Your task to perform on an android device: Play the last video I watched on Youtube Image 0: 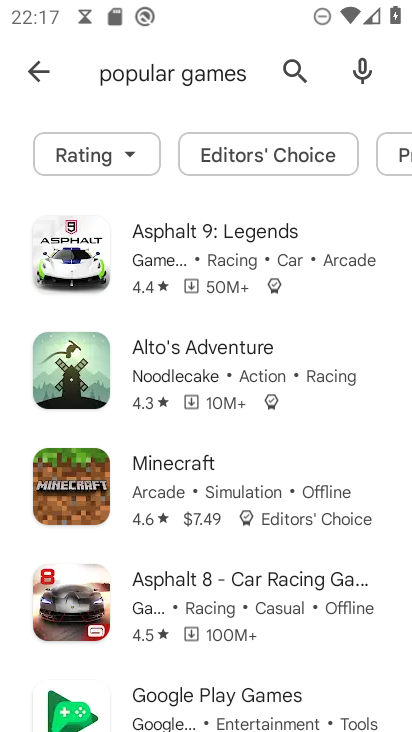
Step 0: press home button
Your task to perform on an android device: Play the last video I watched on Youtube Image 1: 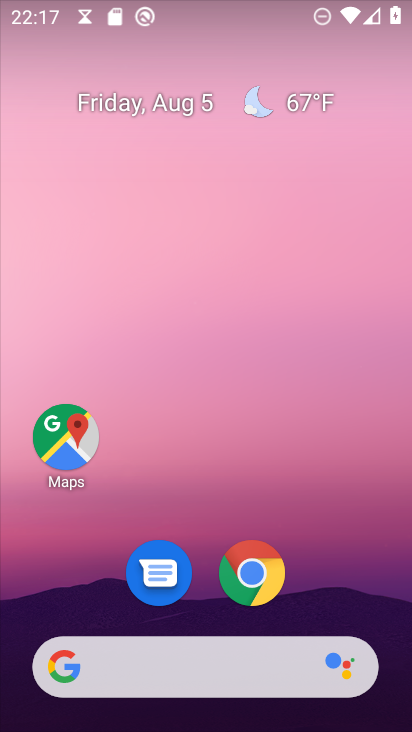
Step 1: drag from (173, 680) to (212, 191)
Your task to perform on an android device: Play the last video I watched on Youtube Image 2: 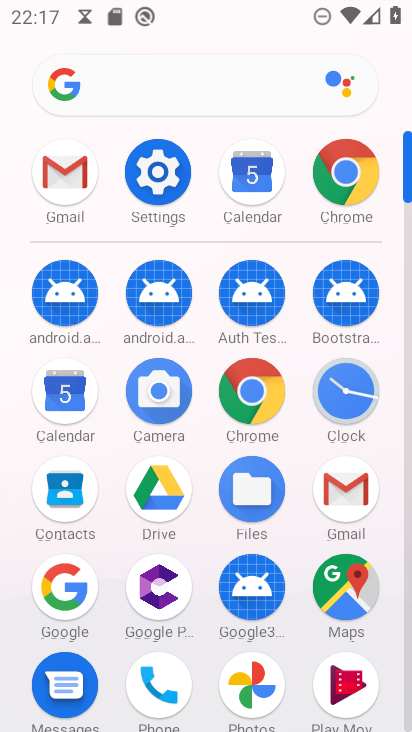
Step 2: drag from (198, 522) to (211, 265)
Your task to perform on an android device: Play the last video I watched on Youtube Image 3: 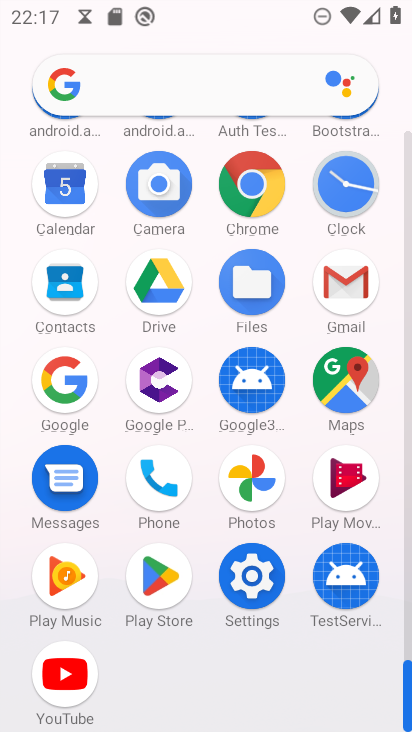
Step 3: click (63, 673)
Your task to perform on an android device: Play the last video I watched on Youtube Image 4: 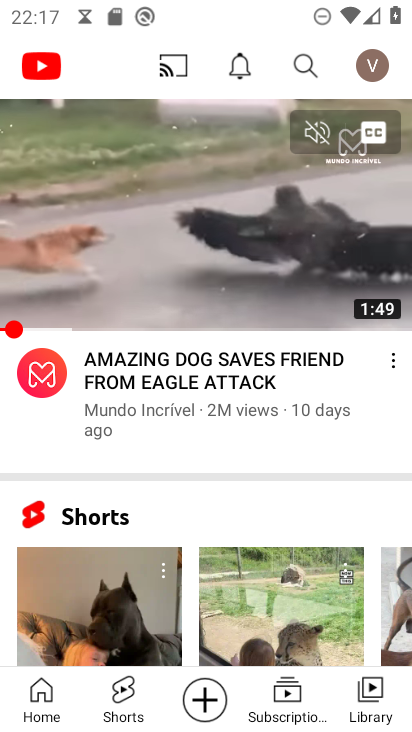
Step 4: click (375, 693)
Your task to perform on an android device: Play the last video I watched on Youtube Image 5: 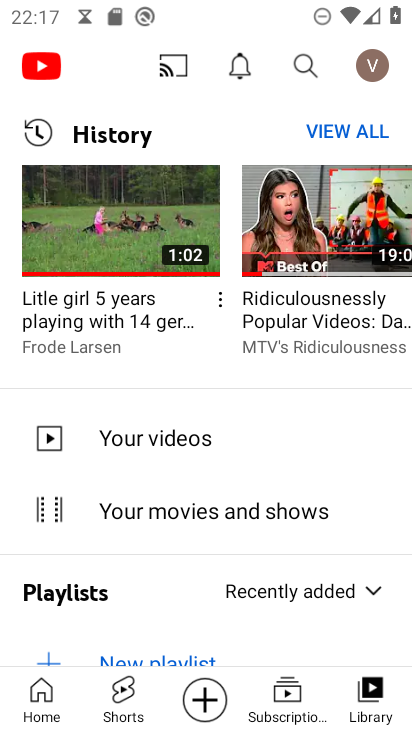
Step 5: click (72, 244)
Your task to perform on an android device: Play the last video I watched on Youtube Image 6: 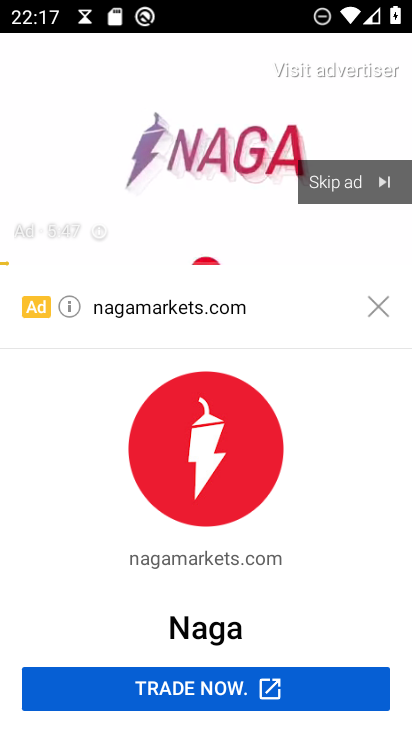
Step 6: click (361, 190)
Your task to perform on an android device: Play the last video I watched on Youtube Image 7: 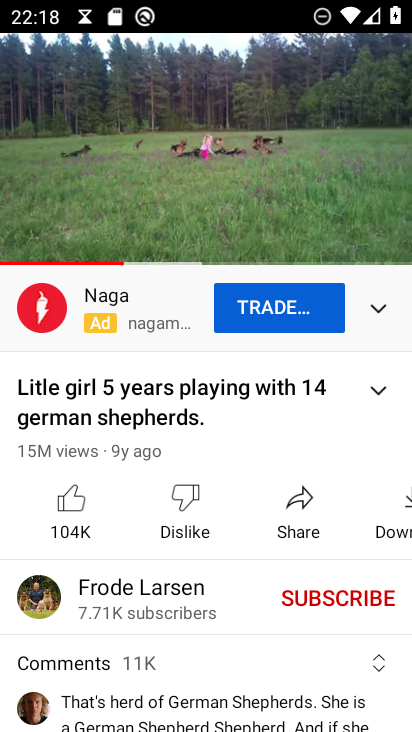
Step 7: click (200, 148)
Your task to perform on an android device: Play the last video I watched on Youtube Image 8: 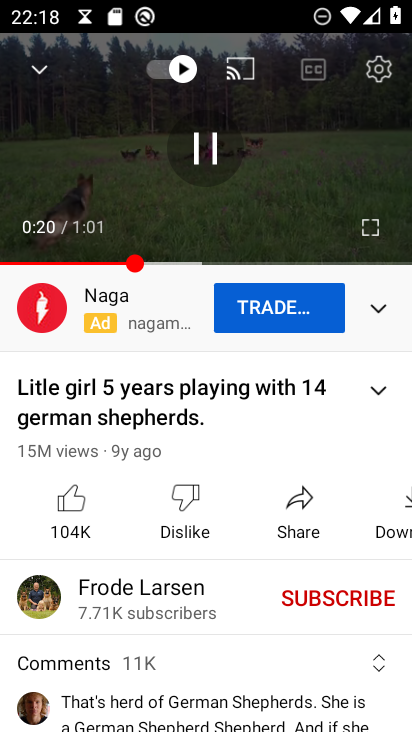
Step 8: click (200, 148)
Your task to perform on an android device: Play the last video I watched on Youtube Image 9: 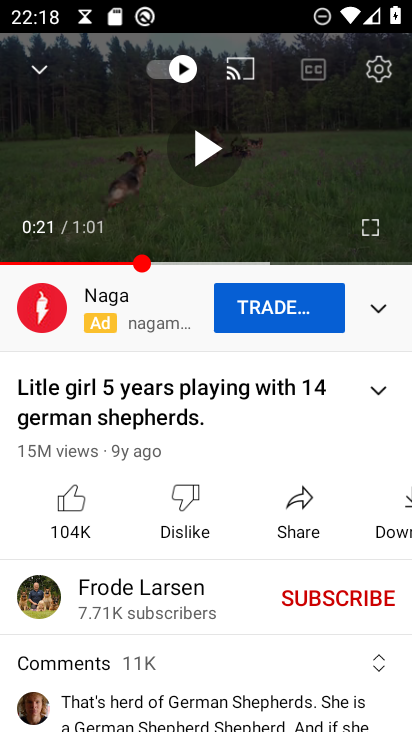
Step 9: task complete